Your task to perform on an android device: Open the Play Movies app and select the watchlist tab. Image 0: 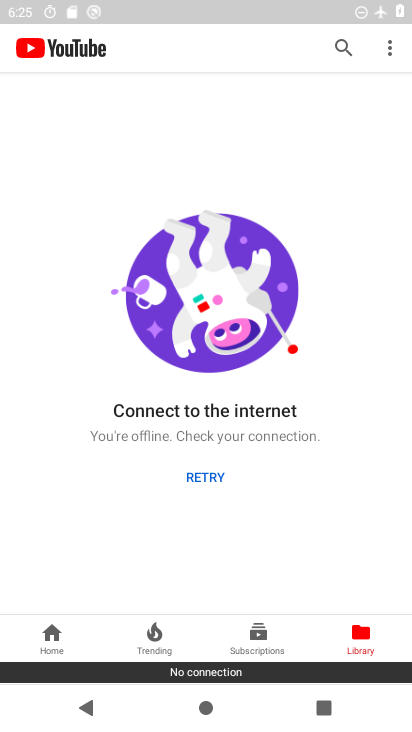
Step 0: press home button
Your task to perform on an android device: Open the Play Movies app and select the watchlist tab. Image 1: 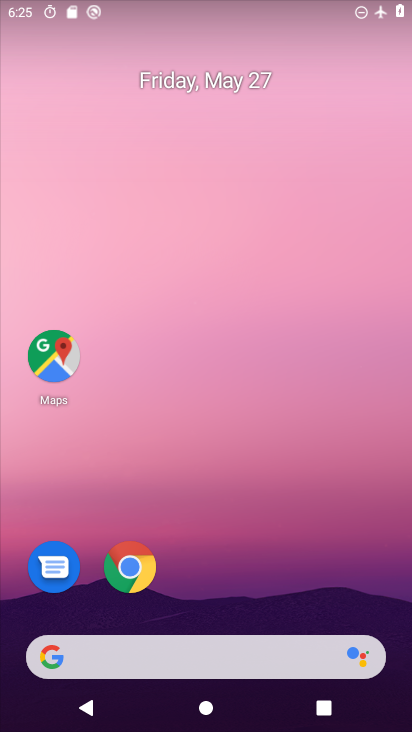
Step 1: drag from (320, 583) to (217, 103)
Your task to perform on an android device: Open the Play Movies app and select the watchlist tab. Image 2: 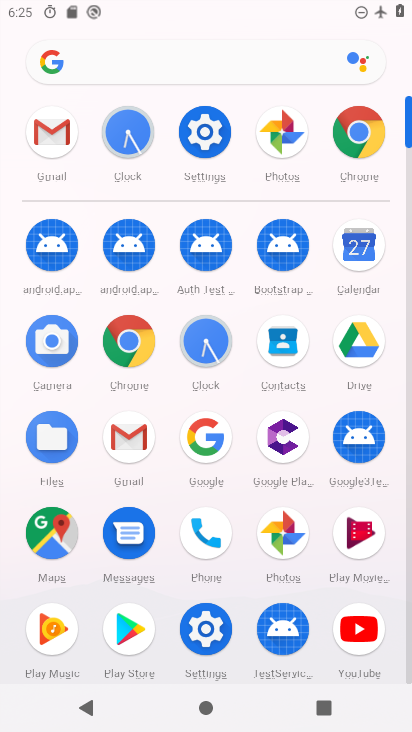
Step 2: click (345, 549)
Your task to perform on an android device: Open the Play Movies app and select the watchlist tab. Image 3: 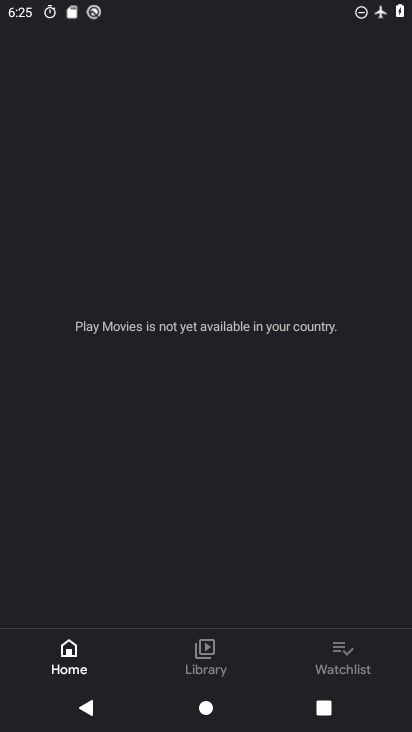
Step 3: drag from (305, 616) to (286, 382)
Your task to perform on an android device: Open the Play Movies app and select the watchlist tab. Image 4: 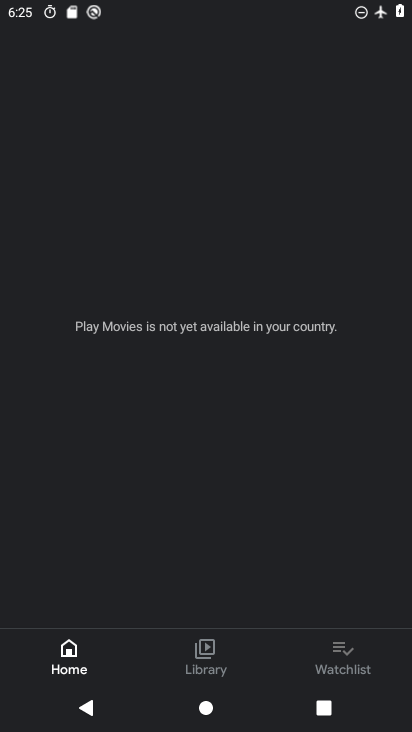
Step 4: click (343, 658)
Your task to perform on an android device: Open the Play Movies app and select the watchlist tab. Image 5: 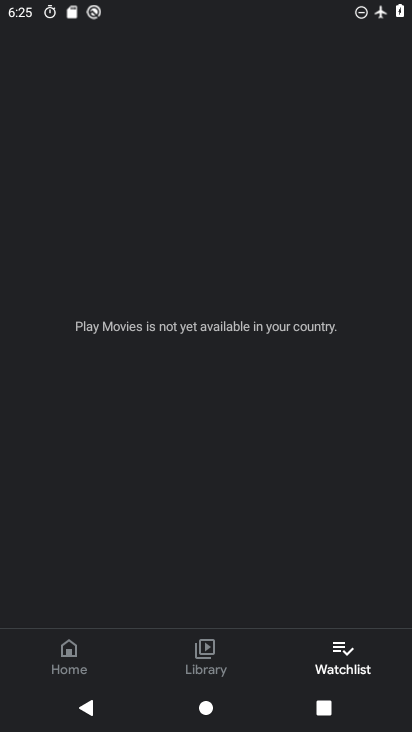
Step 5: task complete